Your task to perform on an android device: Go to Yahoo.com Image 0: 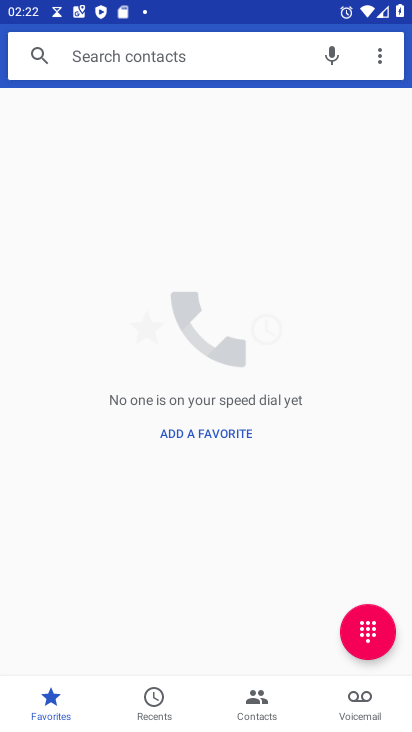
Step 0: press home button
Your task to perform on an android device: Go to Yahoo.com Image 1: 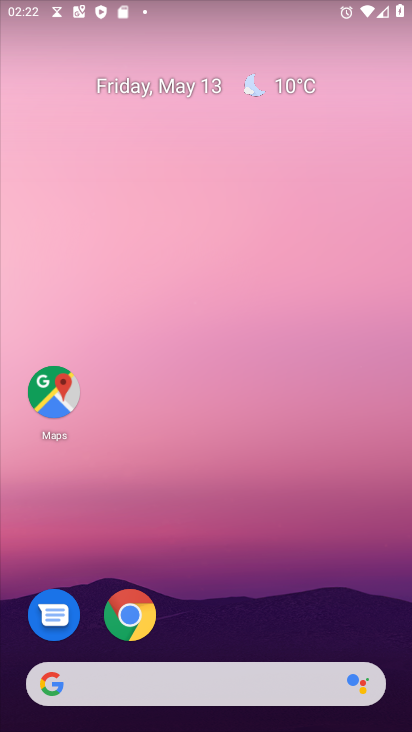
Step 1: click (108, 615)
Your task to perform on an android device: Go to Yahoo.com Image 2: 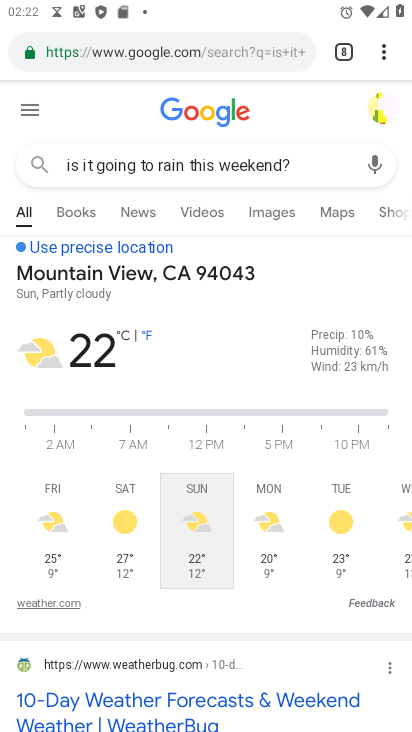
Step 2: click (341, 49)
Your task to perform on an android device: Go to Yahoo.com Image 3: 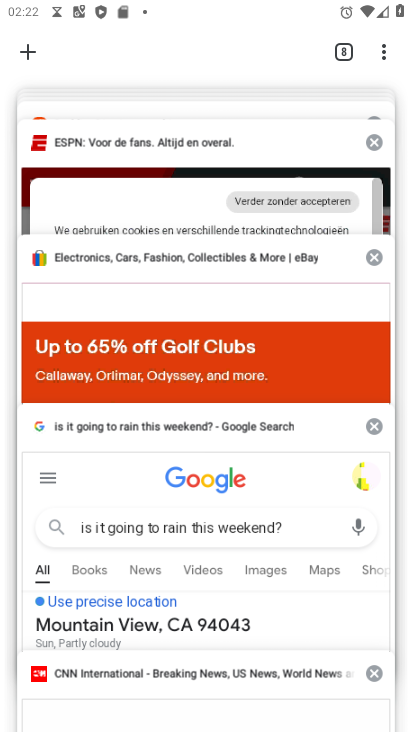
Step 3: drag from (113, 140) to (135, 609)
Your task to perform on an android device: Go to Yahoo.com Image 4: 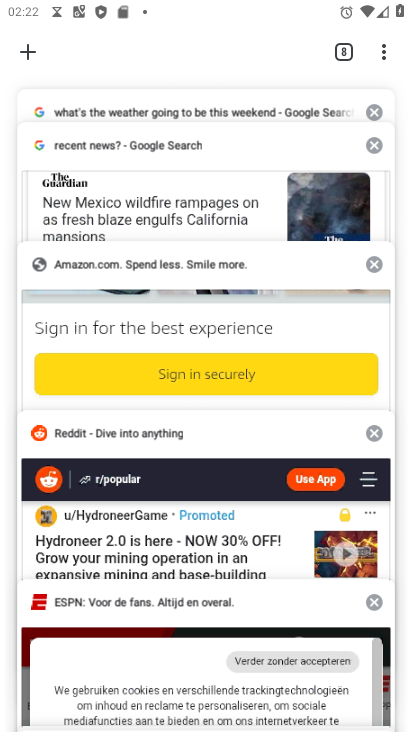
Step 4: drag from (104, 213) to (116, 119)
Your task to perform on an android device: Go to Yahoo.com Image 5: 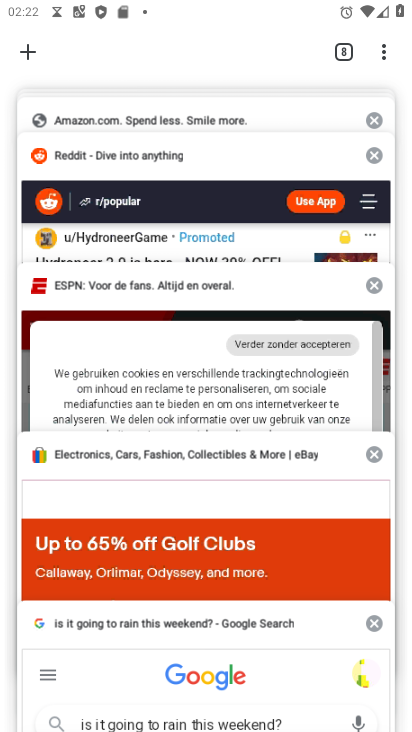
Step 5: drag from (117, 609) to (104, 121)
Your task to perform on an android device: Go to Yahoo.com Image 6: 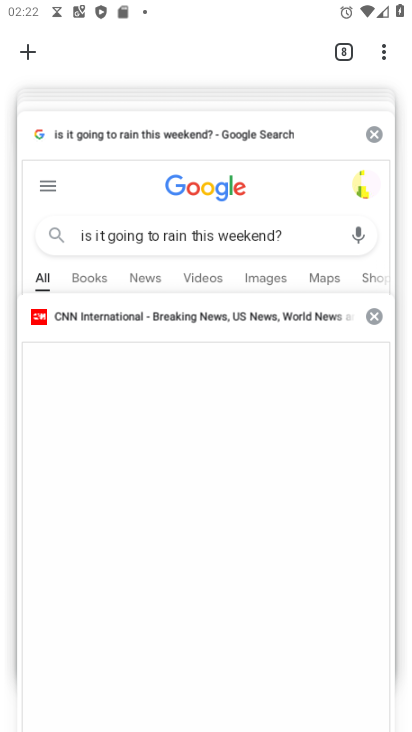
Step 6: drag from (169, 587) to (158, 176)
Your task to perform on an android device: Go to Yahoo.com Image 7: 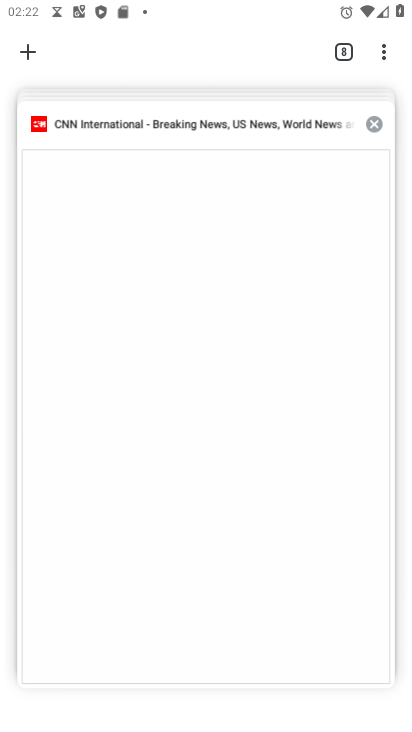
Step 7: click (26, 48)
Your task to perform on an android device: Go to Yahoo.com Image 8: 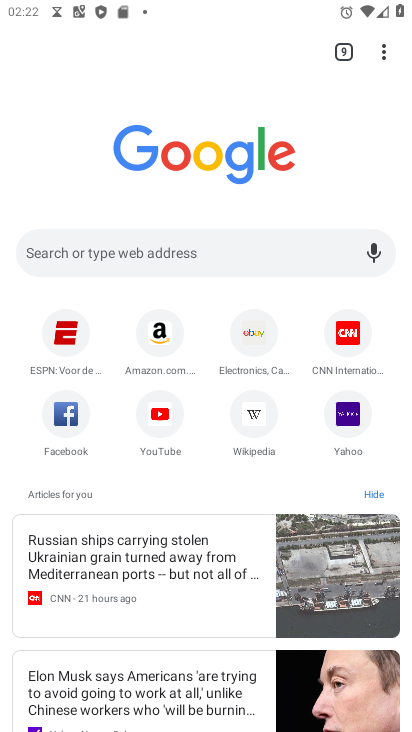
Step 8: click (349, 427)
Your task to perform on an android device: Go to Yahoo.com Image 9: 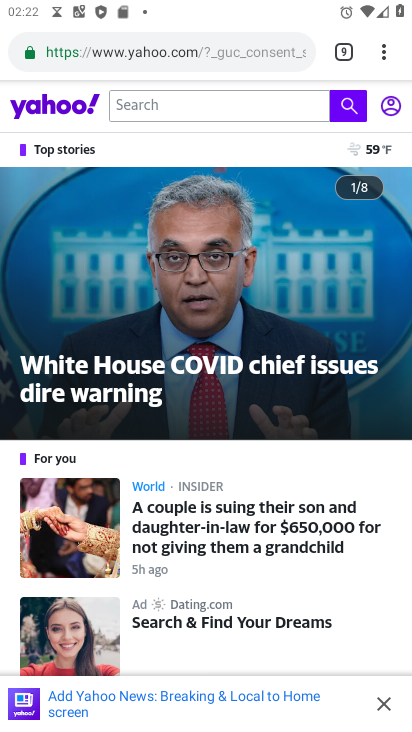
Step 9: task complete